Your task to perform on an android device: Open Chrome and go to settings Image 0: 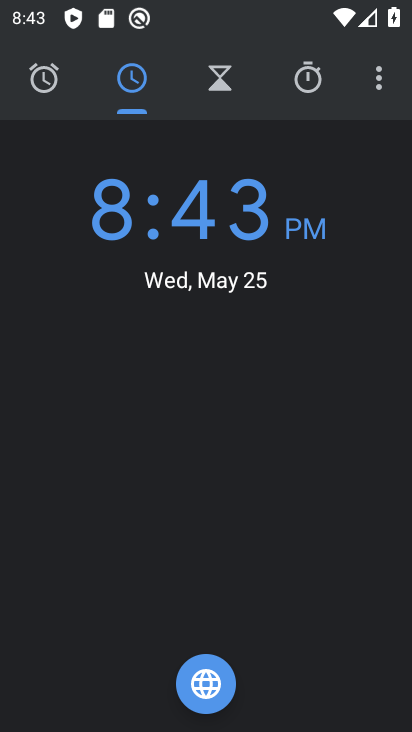
Step 0: press home button
Your task to perform on an android device: Open Chrome and go to settings Image 1: 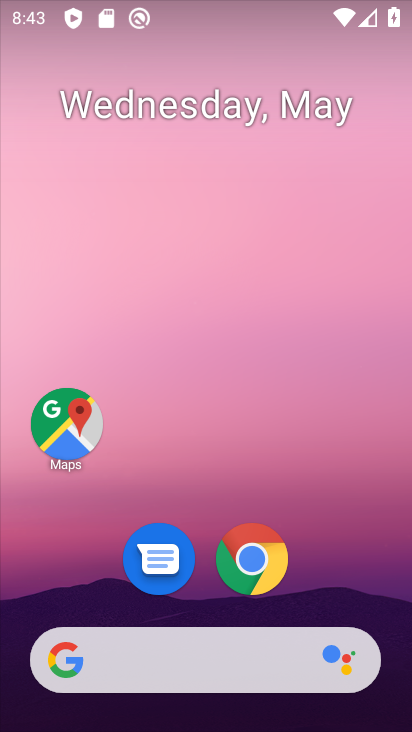
Step 1: click (238, 553)
Your task to perform on an android device: Open Chrome and go to settings Image 2: 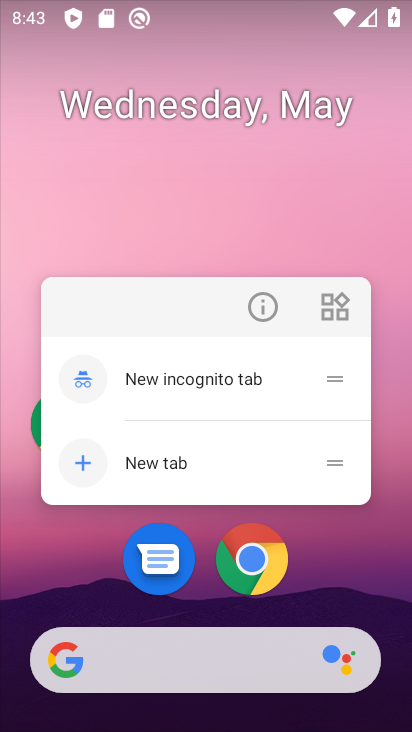
Step 2: click (235, 523)
Your task to perform on an android device: Open Chrome and go to settings Image 3: 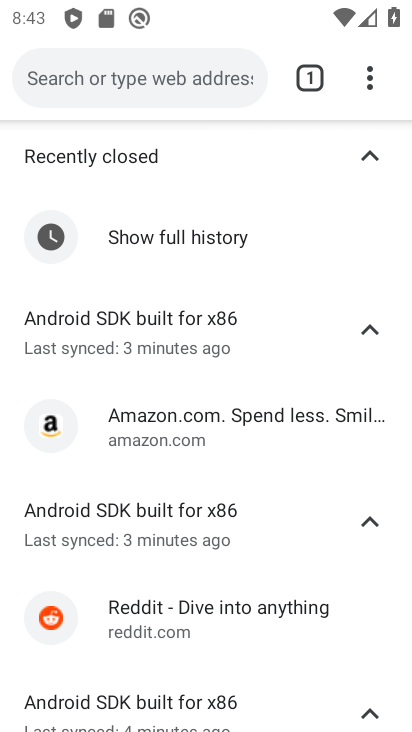
Step 3: task complete